Your task to perform on an android device: set an alarm Image 0: 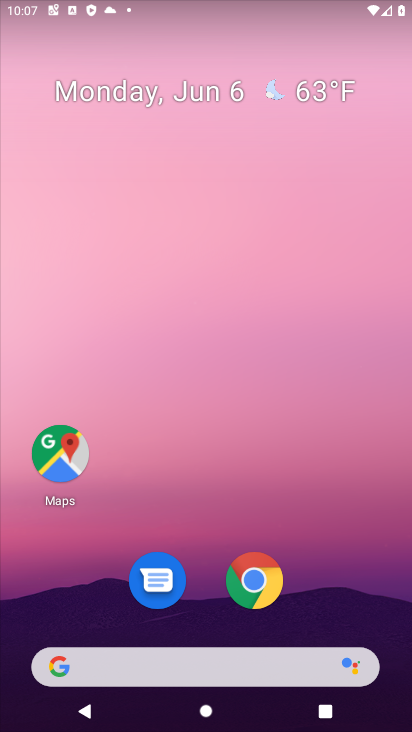
Step 0: drag from (362, 494) to (336, 0)
Your task to perform on an android device: set an alarm Image 1: 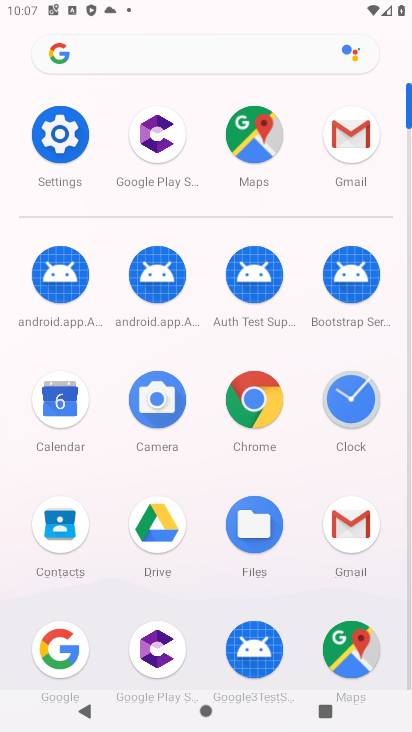
Step 1: click (369, 411)
Your task to perform on an android device: set an alarm Image 2: 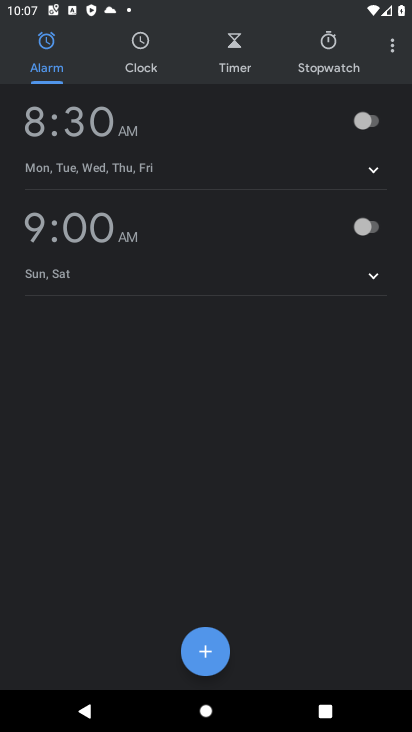
Step 2: click (365, 129)
Your task to perform on an android device: set an alarm Image 3: 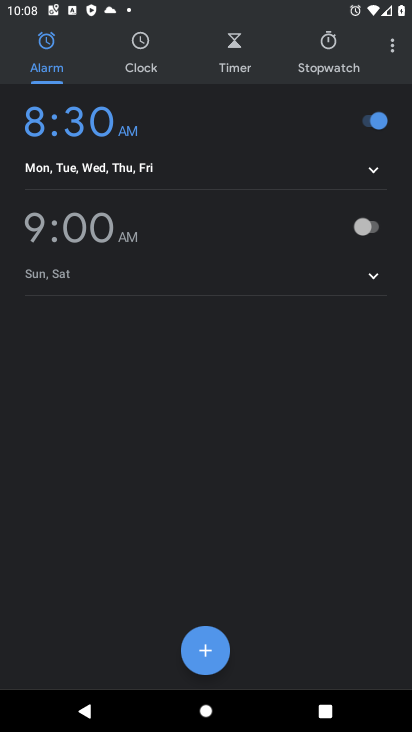
Step 3: task complete